Your task to perform on an android device: allow cookies in the chrome app Image 0: 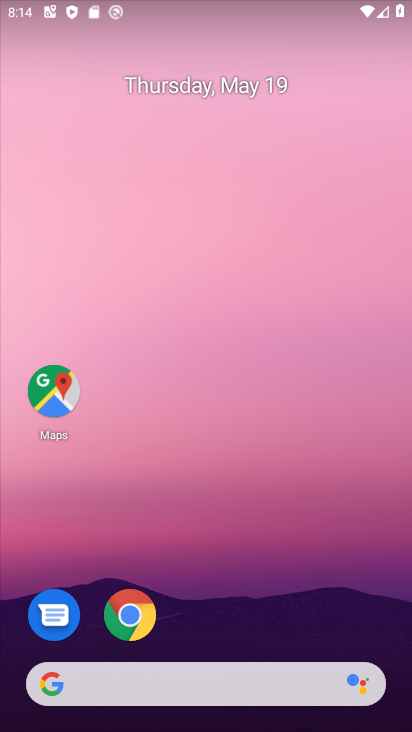
Step 0: click (137, 620)
Your task to perform on an android device: allow cookies in the chrome app Image 1: 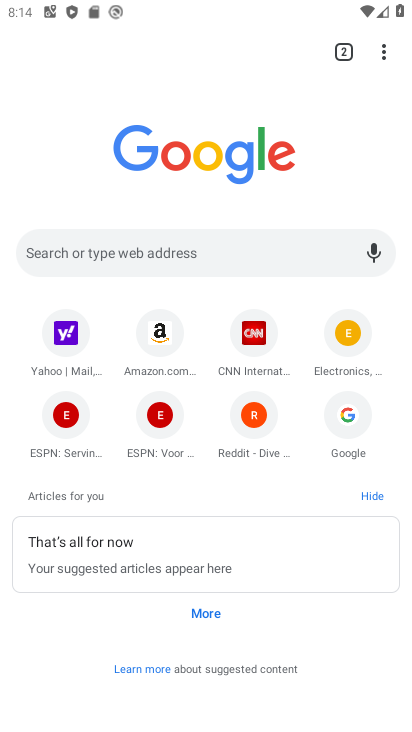
Step 1: click (378, 51)
Your task to perform on an android device: allow cookies in the chrome app Image 2: 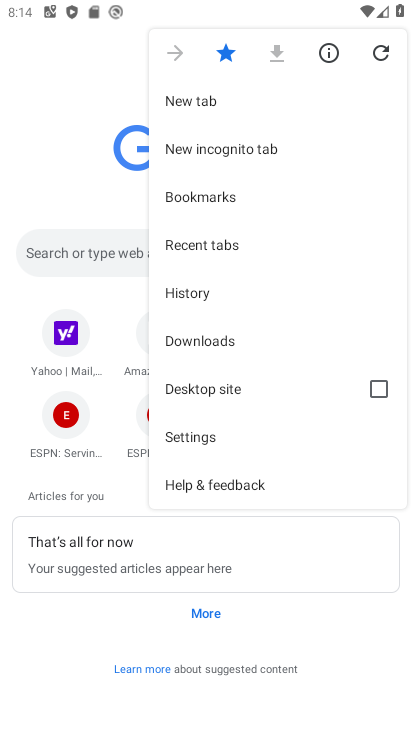
Step 2: click (194, 433)
Your task to perform on an android device: allow cookies in the chrome app Image 3: 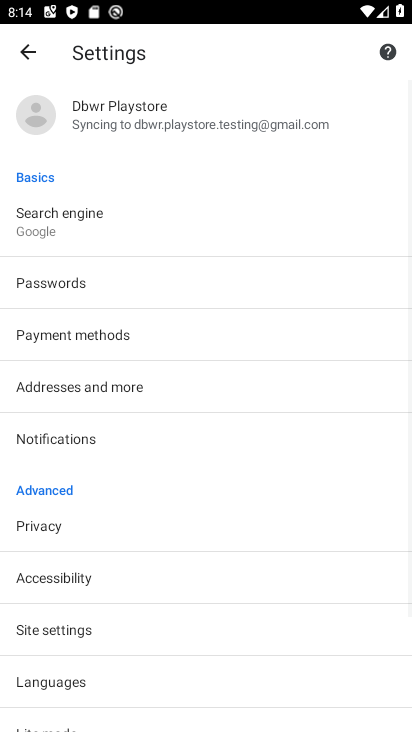
Step 3: click (109, 629)
Your task to perform on an android device: allow cookies in the chrome app Image 4: 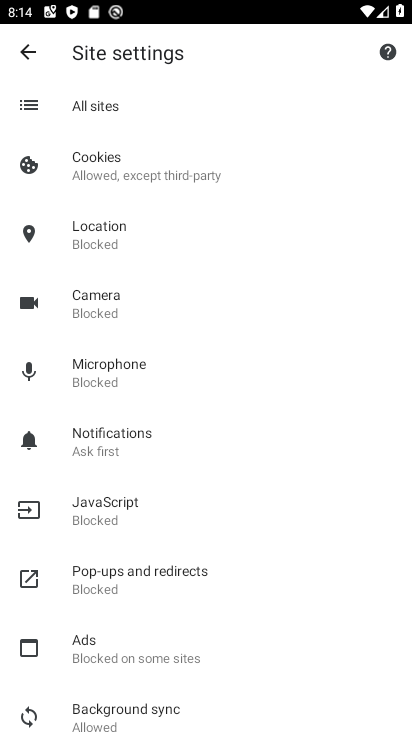
Step 4: click (159, 171)
Your task to perform on an android device: allow cookies in the chrome app Image 5: 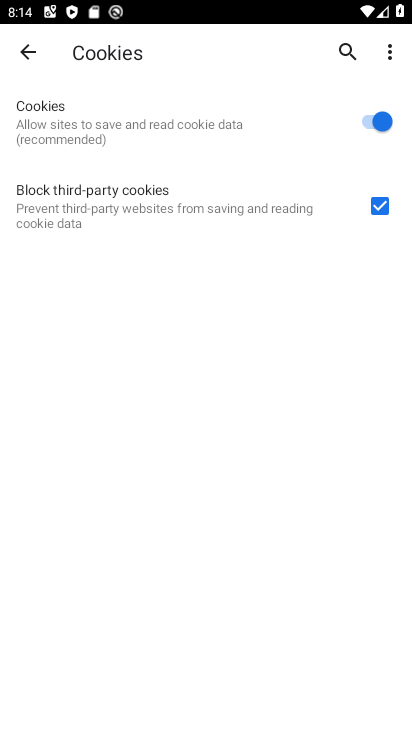
Step 5: task complete